Your task to perform on an android device: turn on the 12-hour format for clock Image 0: 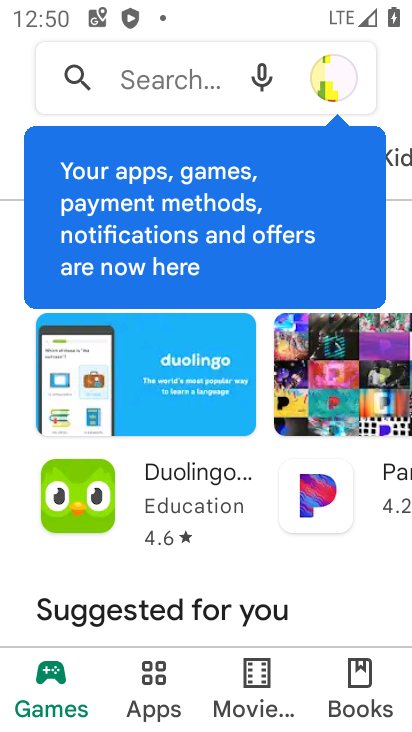
Step 0: press home button
Your task to perform on an android device: turn on the 12-hour format for clock Image 1: 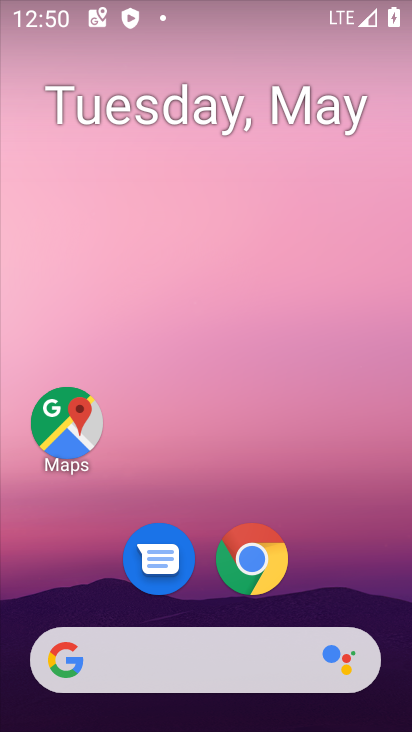
Step 1: drag from (331, 561) to (240, 144)
Your task to perform on an android device: turn on the 12-hour format for clock Image 2: 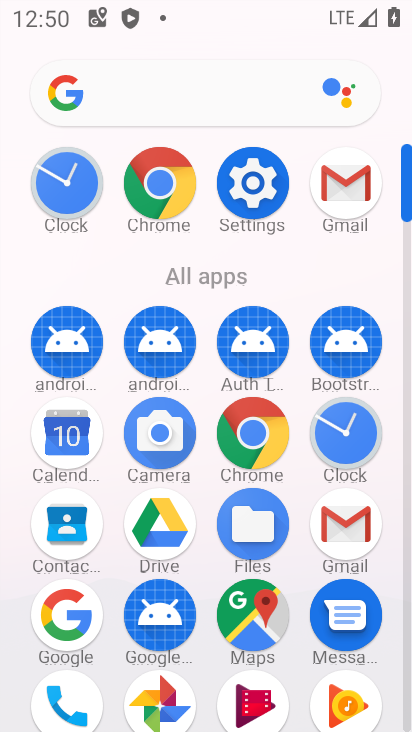
Step 2: click (343, 440)
Your task to perform on an android device: turn on the 12-hour format for clock Image 3: 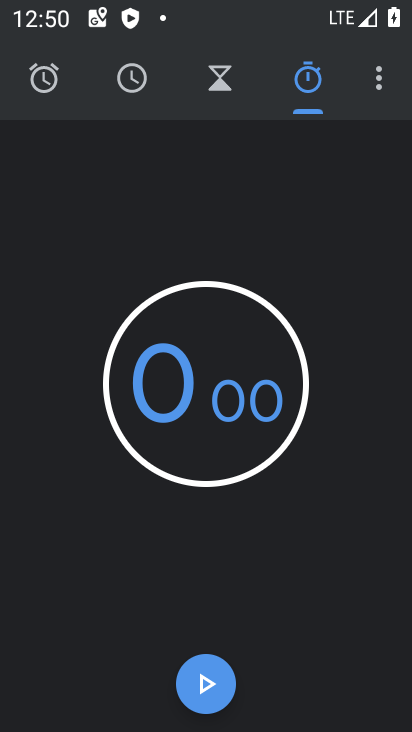
Step 3: click (370, 87)
Your task to perform on an android device: turn on the 12-hour format for clock Image 4: 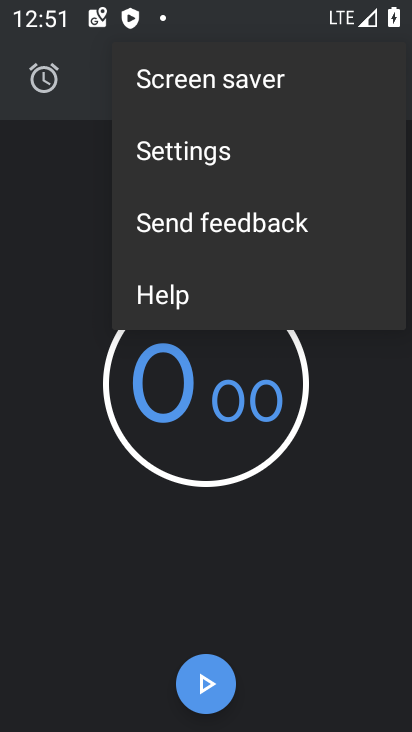
Step 4: click (223, 154)
Your task to perform on an android device: turn on the 12-hour format for clock Image 5: 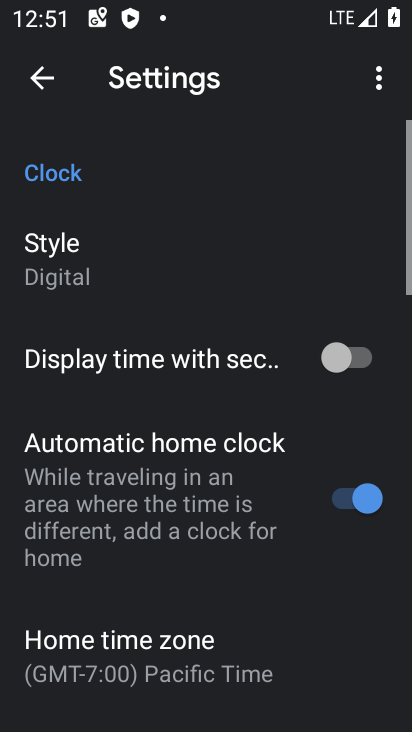
Step 5: drag from (279, 669) to (260, 403)
Your task to perform on an android device: turn on the 12-hour format for clock Image 6: 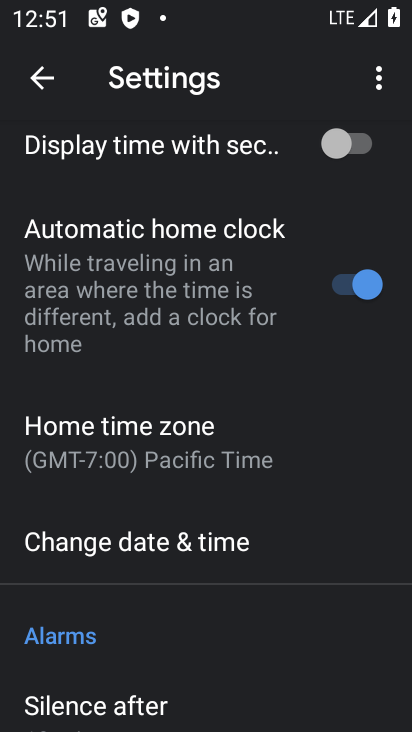
Step 6: click (181, 533)
Your task to perform on an android device: turn on the 12-hour format for clock Image 7: 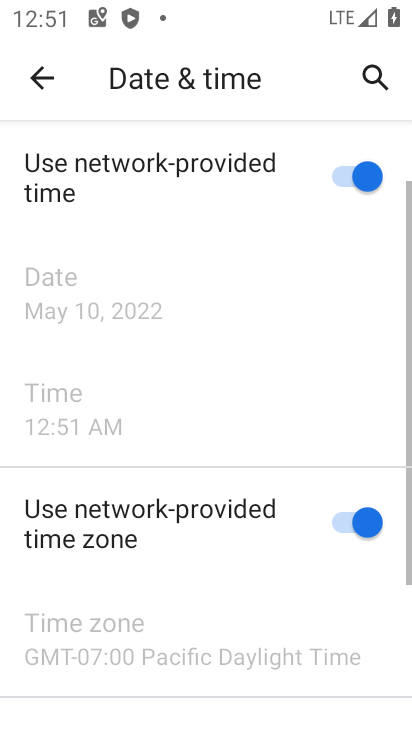
Step 7: task complete